Your task to perform on an android device: Open calendar and show me the fourth week of next month Image 0: 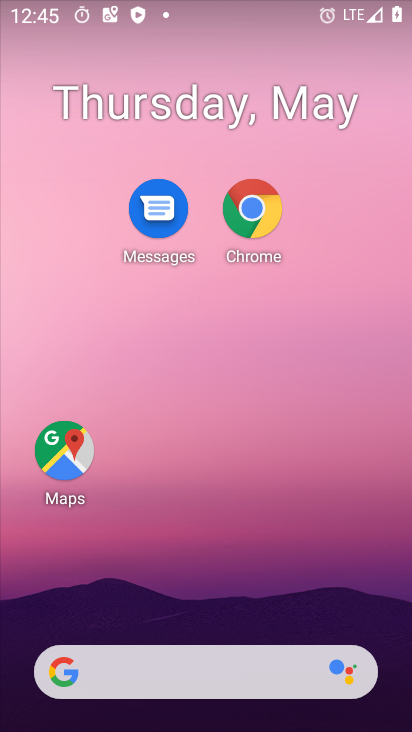
Step 0: drag from (217, 626) to (226, 175)
Your task to perform on an android device: Open calendar and show me the fourth week of next month Image 1: 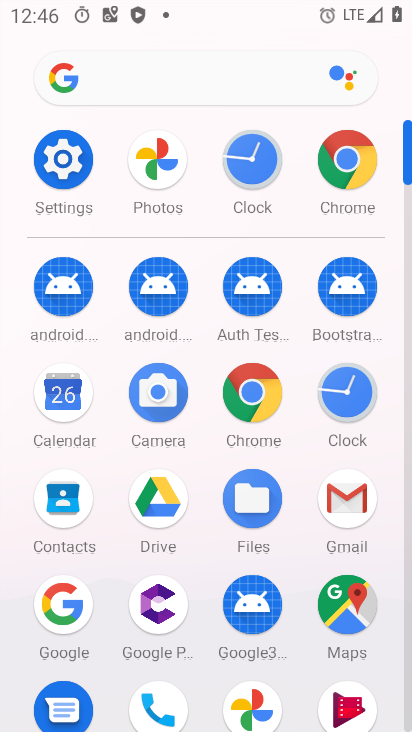
Step 1: click (74, 434)
Your task to perform on an android device: Open calendar and show me the fourth week of next month Image 2: 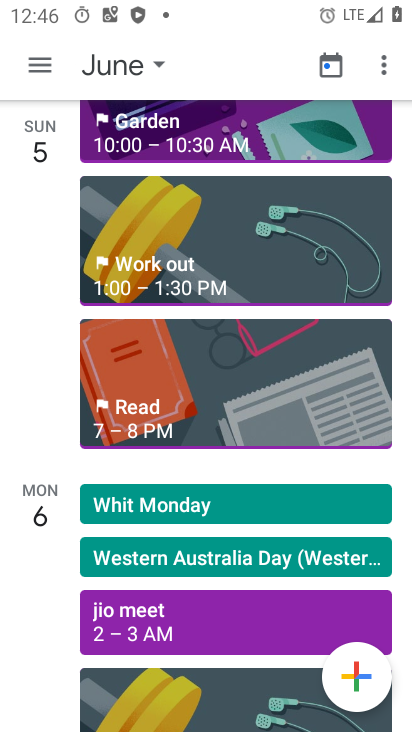
Step 2: click (124, 72)
Your task to perform on an android device: Open calendar and show me the fourth week of next month Image 3: 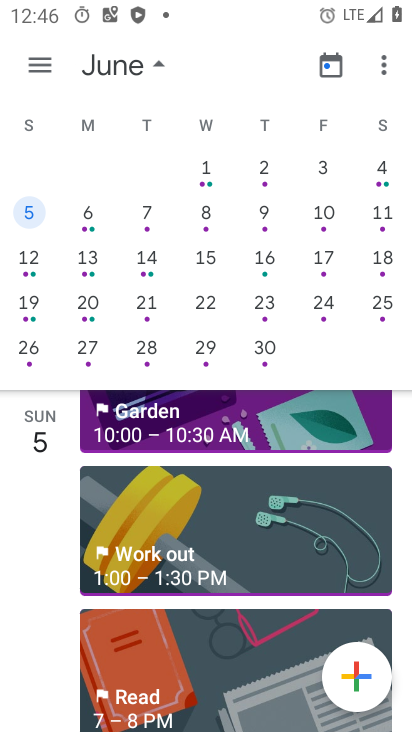
Step 3: click (115, 69)
Your task to perform on an android device: Open calendar and show me the fourth week of next month Image 4: 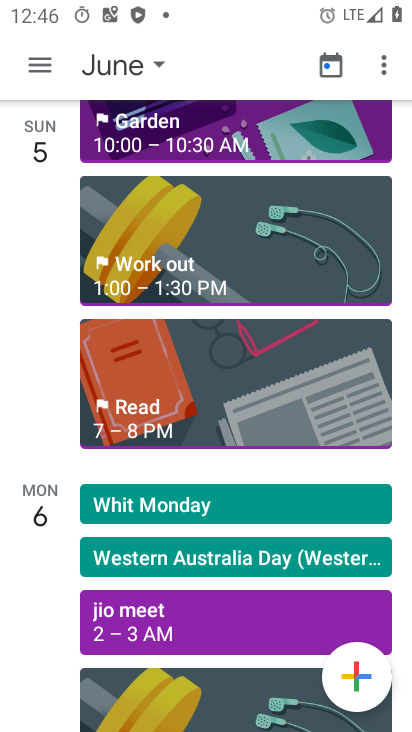
Step 4: click (125, 73)
Your task to perform on an android device: Open calendar and show me the fourth week of next month Image 5: 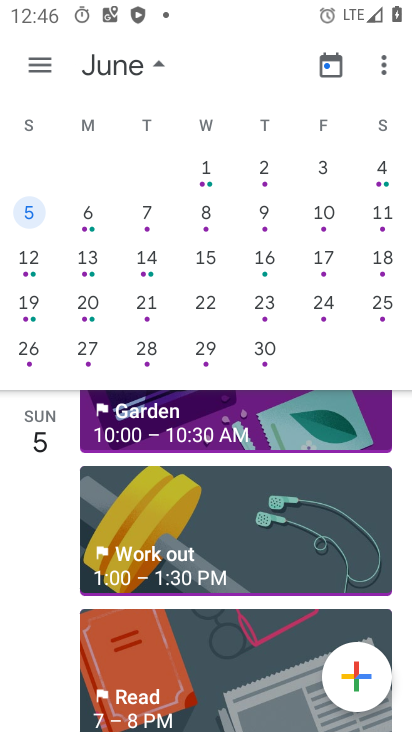
Step 5: drag from (98, 260) to (373, 301)
Your task to perform on an android device: Open calendar and show me the fourth week of next month Image 6: 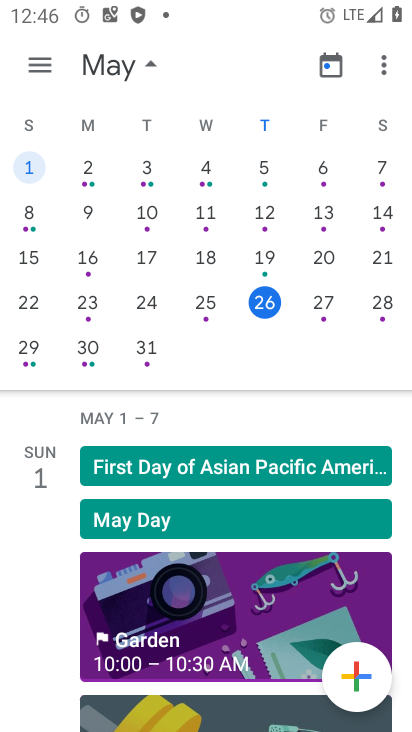
Step 6: click (40, 65)
Your task to perform on an android device: Open calendar and show me the fourth week of next month Image 7: 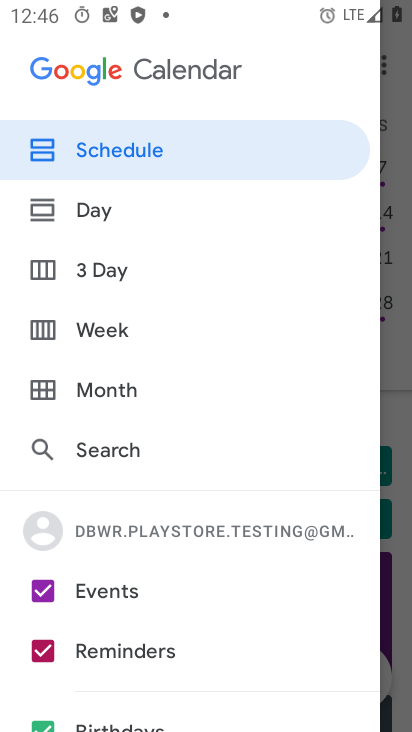
Step 7: drag from (274, 351) to (171, 124)
Your task to perform on an android device: Open calendar and show me the fourth week of next month Image 8: 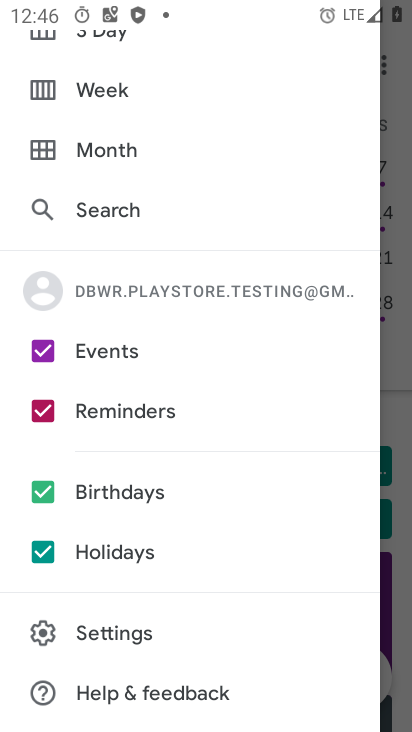
Step 8: click (115, 83)
Your task to perform on an android device: Open calendar and show me the fourth week of next month Image 9: 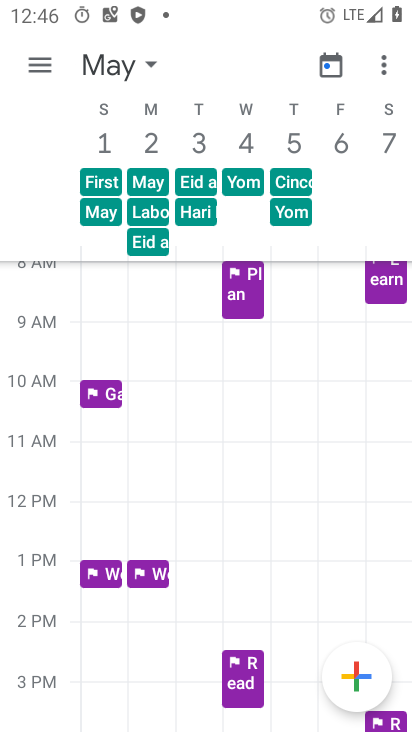
Step 9: click (134, 71)
Your task to perform on an android device: Open calendar and show me the fourth week of next month Image 10: 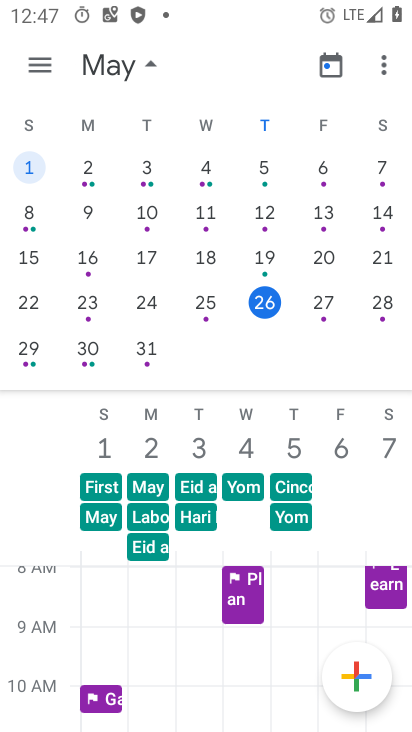
Step 10: click (139, 68)
Your task to perform on an android device: Open calendar and show me the fourth week of next month Image 11: 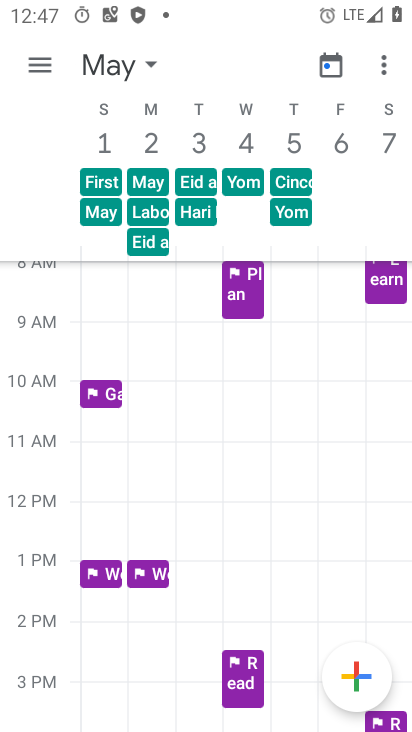
Step 11: click (138, 69)
Your task to perform on an android device: Open calendar and show me the fourth week of next month Image 12: 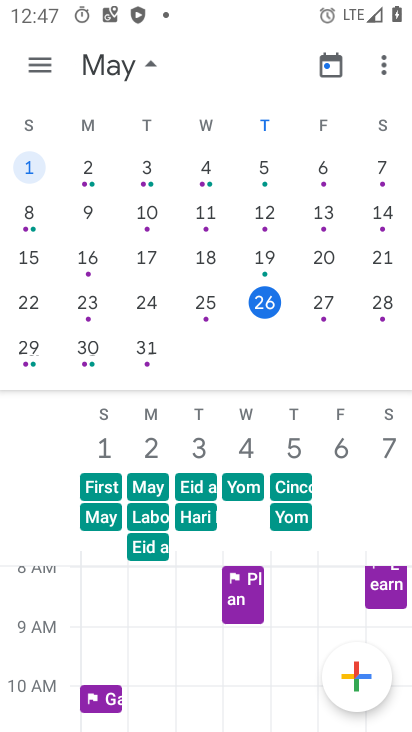
Step 12: drag from (314, 260) to (63, 236)
Your task to perform on an android device: Open calendar and show me the fourth week of next month Image 13: 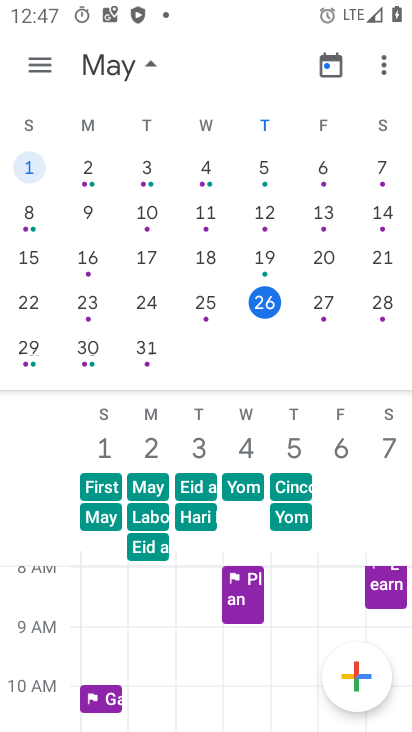
Step 13: drag from (352, 228) to (80, 238)
Your task to perform on an android device: Open calendar and show me the fourth week of next month Image 14: 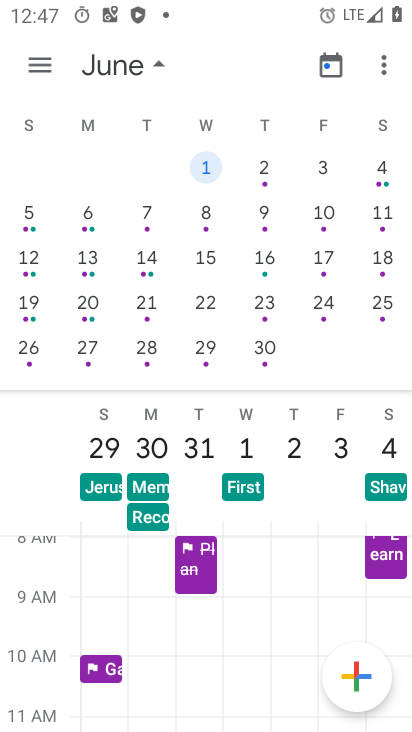
Step 14: click (32, 346)
Your task to perform on an android device: Open calendar and show me the fourth week of next month Image 15: 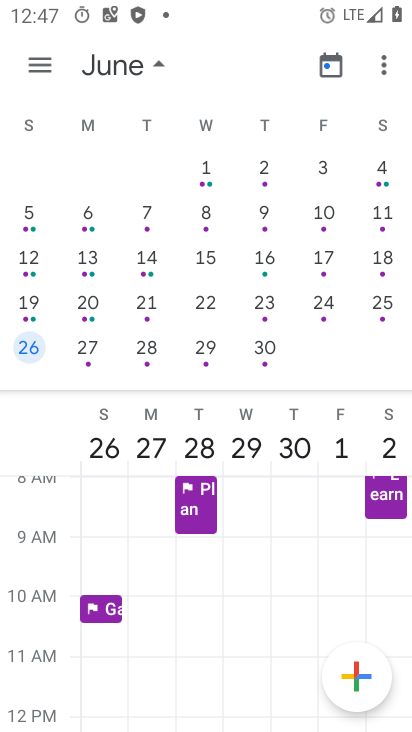
Step 15: task complete